Your task to perform on an android device: Go to settings Image 0: 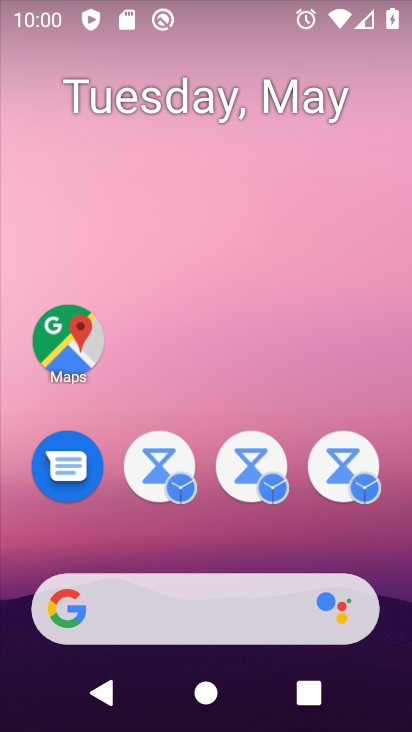
Step 0: drag from (332, 645) to (169, 121)
Your task to perform on an android device: Go to settings Image 1: 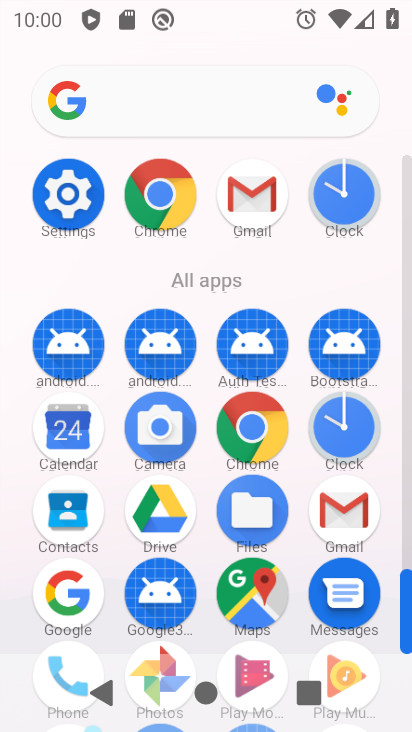
Step 1: click (78, 199)
Your task to perform on an android device: Go to settings Image 2: 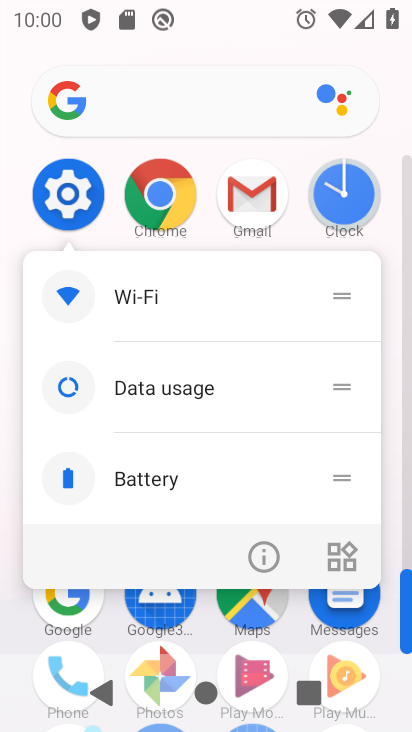
Step 2: click (81, 198)
Your task to perform on an android device: Go to settings Image 3: 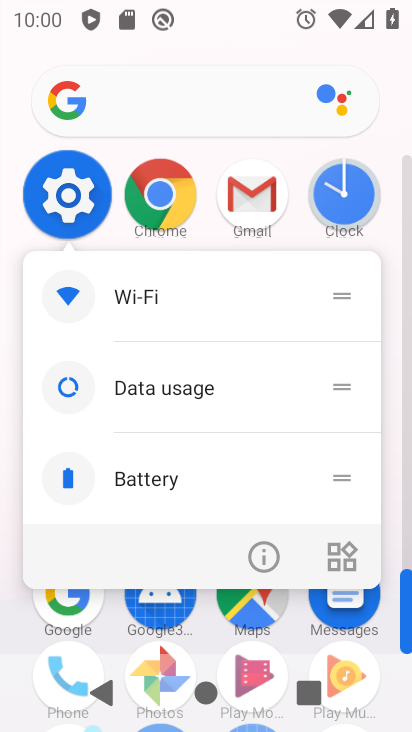
Step 3: click (80, 204)
Your task to perform on an android device: Go to settings Image 4: 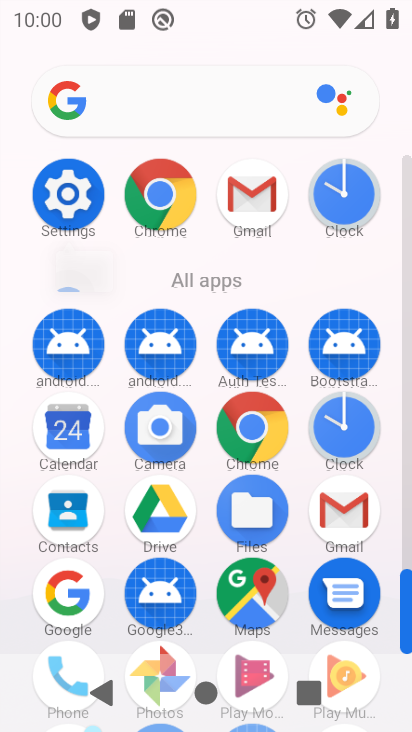
Step 4: click (81, 204)
Your task to perform on an android device: Go to settings Image 5: 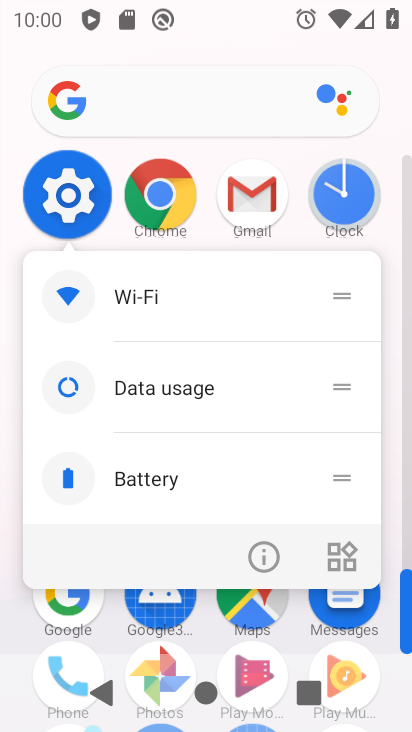
Step 5: click (81, 204)
Your task to perform on an android device: Go to settings Image 6: 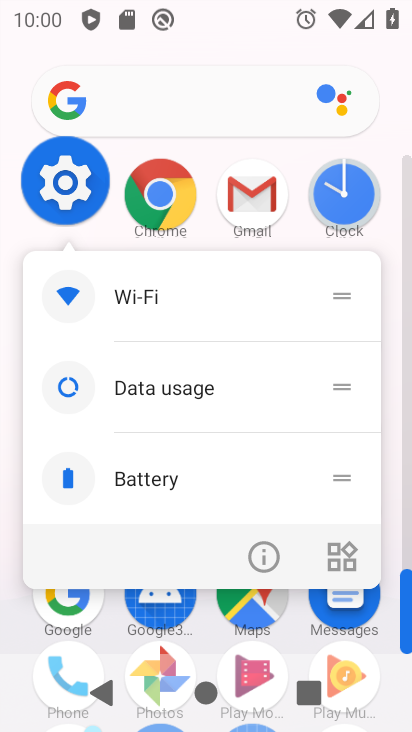
Step 6: click (80, 189)
Your task to perform on an android device: Go to settings Image 7: 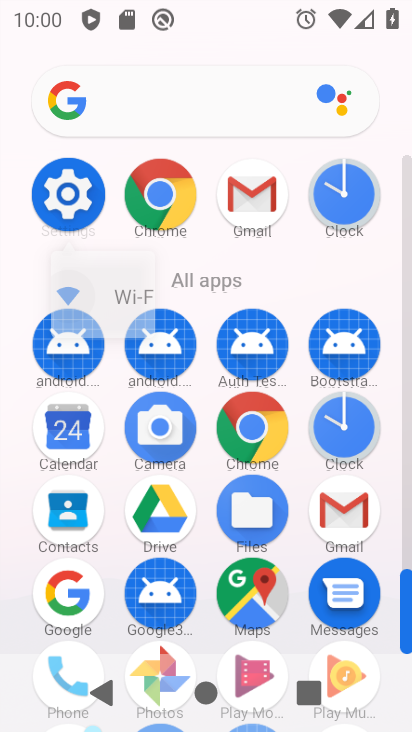
Step 7: click (80, 189)
Your task to perform on an android device: Go to settings Image 8: 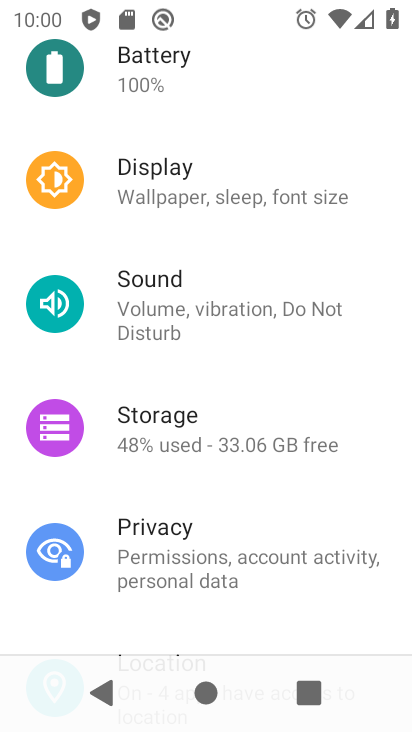
Step 8: click (79, 186)
Your task to perform on an android device: Go to settings Image 9: 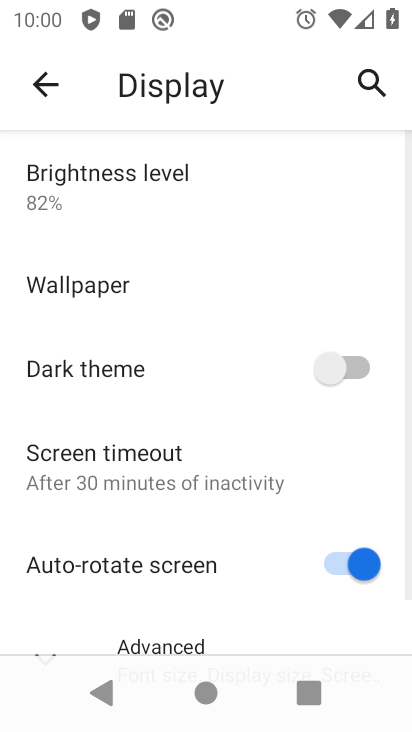
Step 9: click (44, 92)
Your task to perform on an android device: Go to settings Image 10: 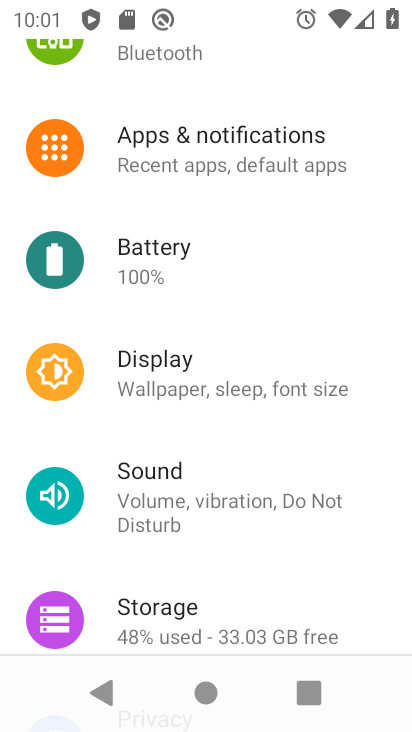
Step 10: task complete